Your task to perform on an android device: toggle show notifications on the lock screen Image 0: 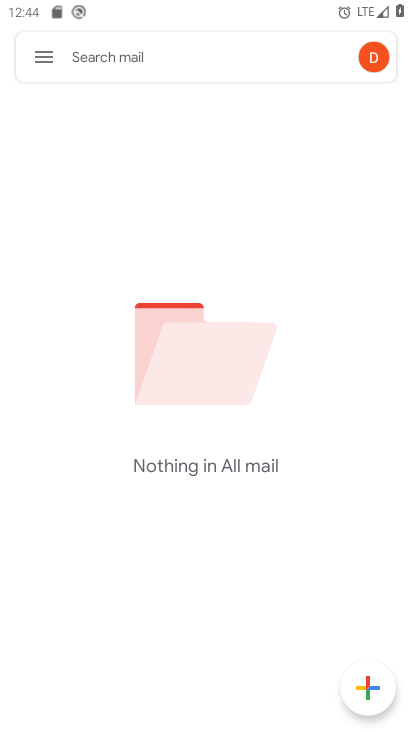
Step 0: press home button
Your task to perform on an android device: toggle show notifications on the lock screen Image 1: 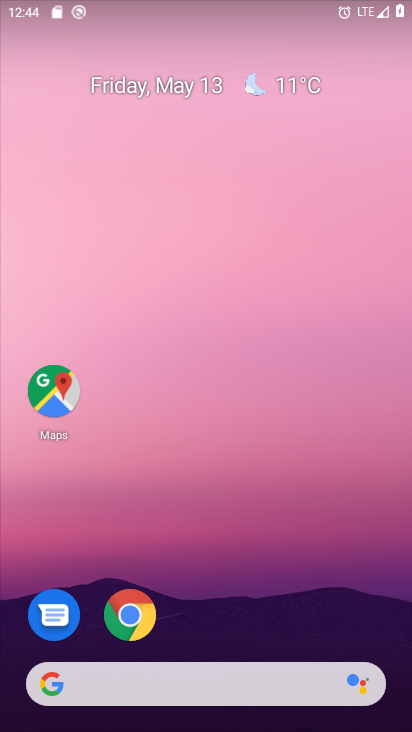
Step 1: drag from (278, 557) to (303, 48)
Your task to perform on an android device: toggle show notifications on the lock screen Image 2: 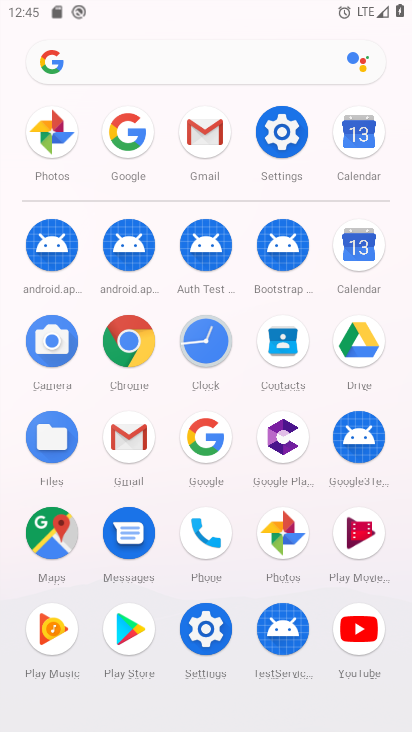
Step 2: click (279, 125)
Your task to perform on an android device: toggle show notifications on the lock screen Image 3: 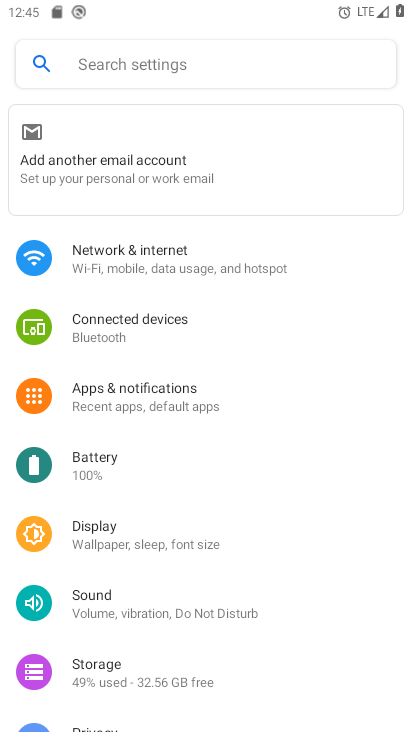
Step 3: click (191, 401)
Your task to perform on an android device: toggle show notifications on the lock screen Image 4: 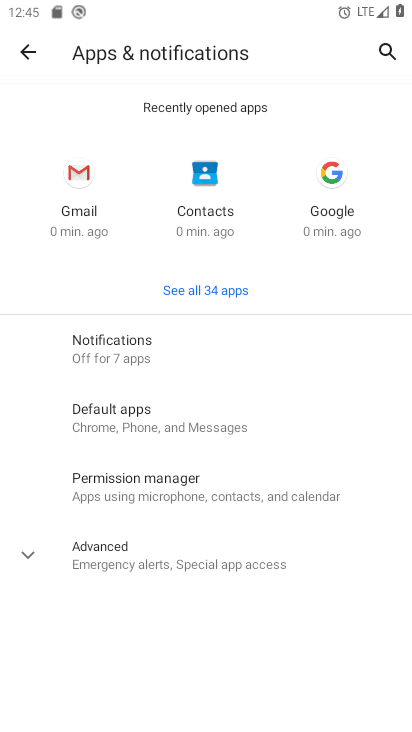
Step 4: click (182, 356)
Your task to perform on an android device: toggle show notifications on the lock screen Image 5: 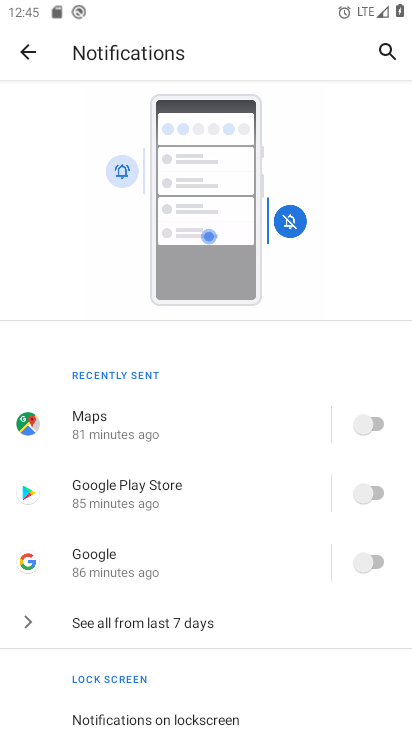
Step 5: drag from (199, 596) to (200, 303)
Your task to perform on an android device: toggle show notifications on the lock screen Image 6: 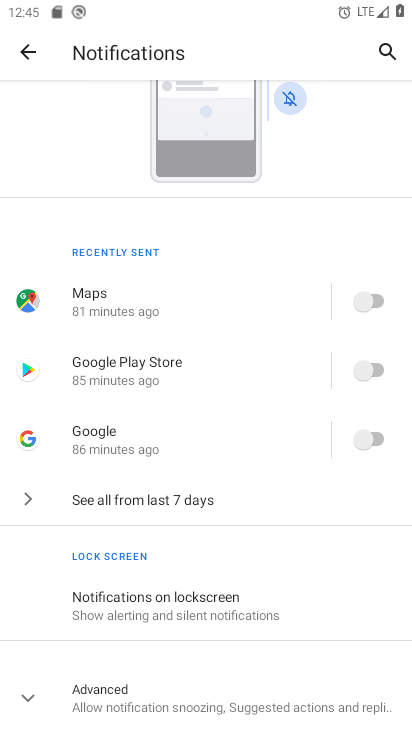
Step 6: click (168, 591)
Your task to perform on an android device: toggle show notifications on the lock screen Image 7: 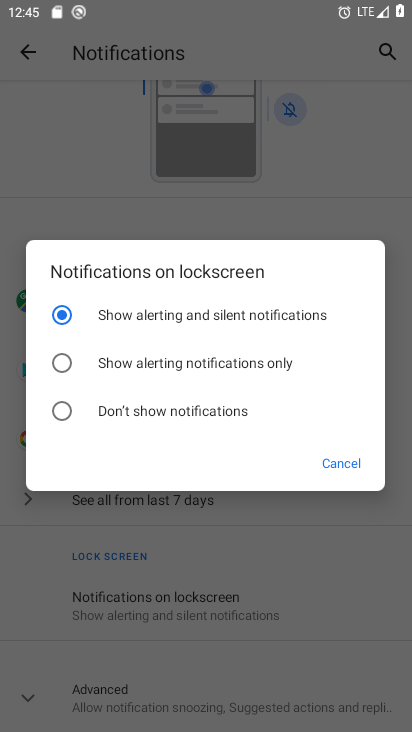
Step 7: click (61, 395)
Your task to perform on an android device: toggle show notifications on the lock screen Image 8: 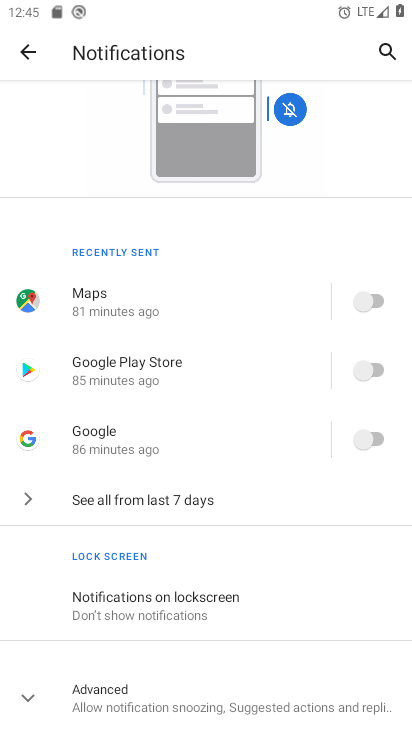
Step 8: task complete